Your task to perform on an android device: toggle airplane mode Image 0: 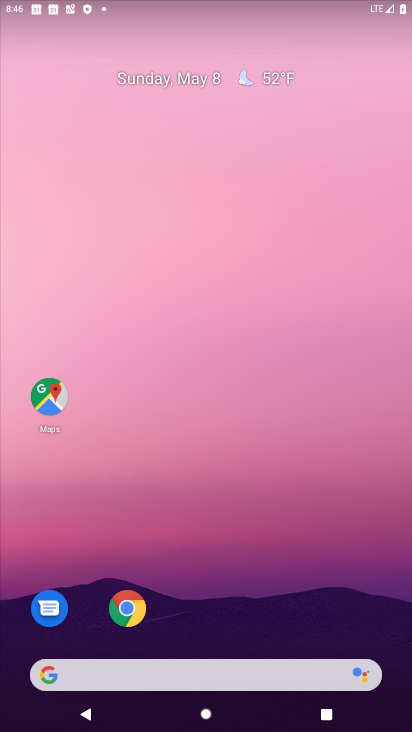
Step 0: click (242, 7)
Your task to perform on an android device: toggle airplane mode Image 1: 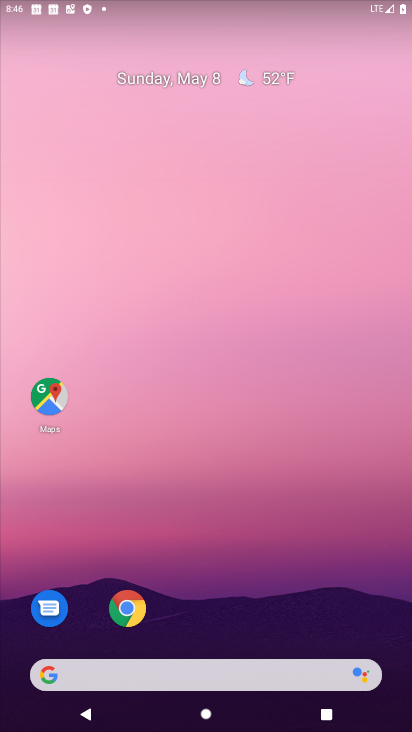
Step 1: drag from (334, 534) to (261, 42)
Your task to perform on an android device: toggle airplane mode Image 2: 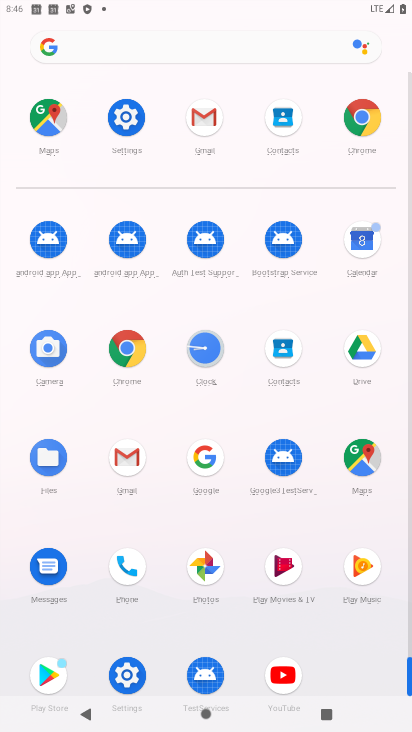
Step 2: click (122, 671)
Your task to perform on an android device: toggle airplane mode Image 3: 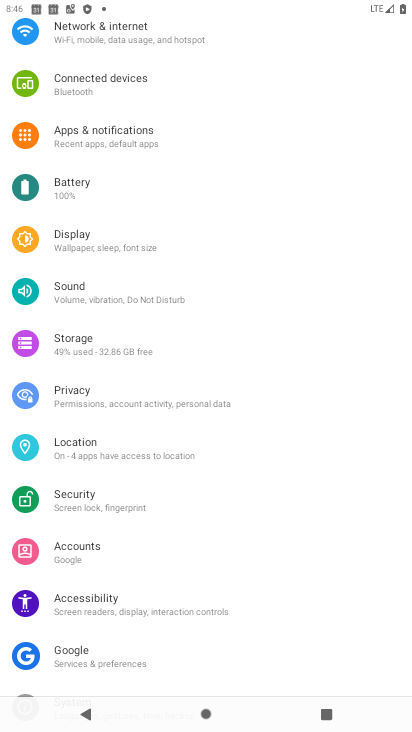
Step 3: drag from (244, 96) to (270, 505)
Your task to perform on an android device: toggle airplane mode Image 4: 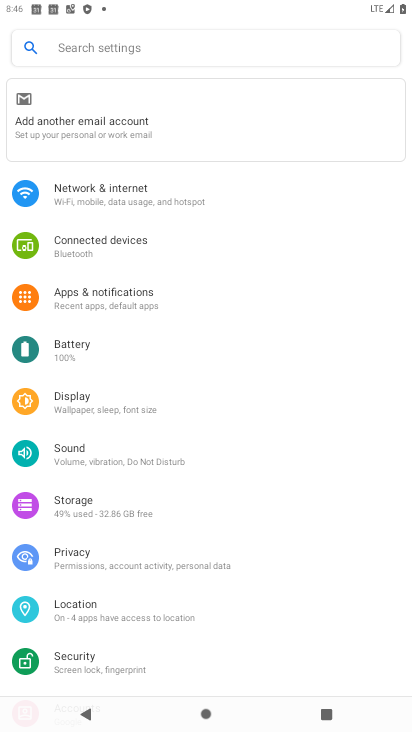
Step 4: click (165, 178)
Your task to perform on an android device: toggle airplane mode Image 5: 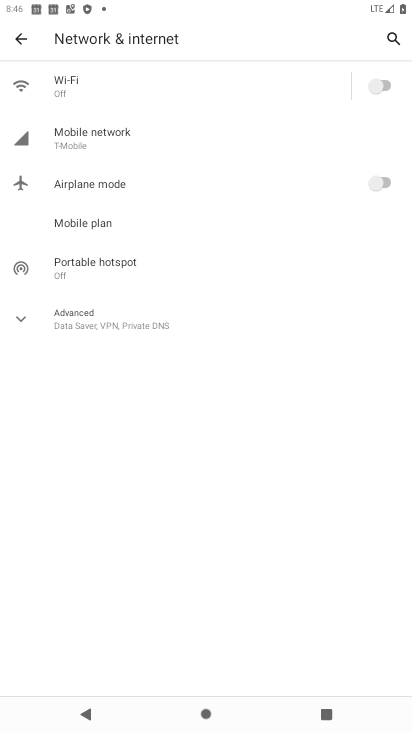
Step 5: click (45, 325)
Your task to perform on an android device: toggle airplane mode Image 6: 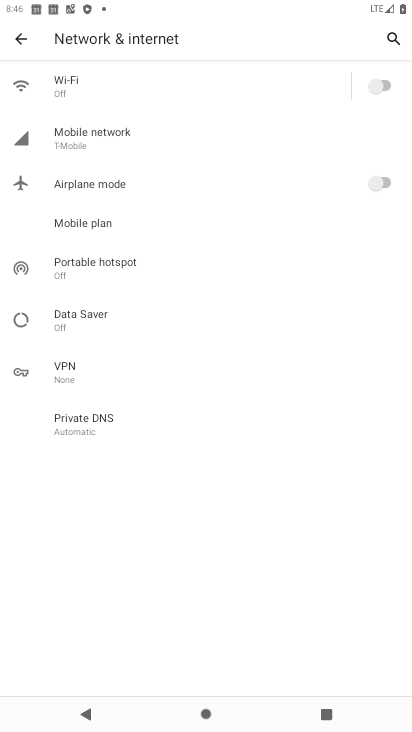
Step 6: click (376, 181)
Your task to perform on an android device: toggle airplane mode Image 7: 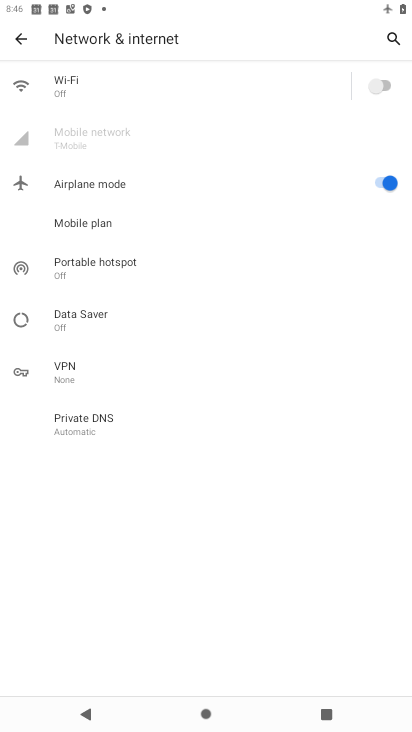
Step 7: task complete